Your task to perform on an android device: open chrome privacy settings Image 0: 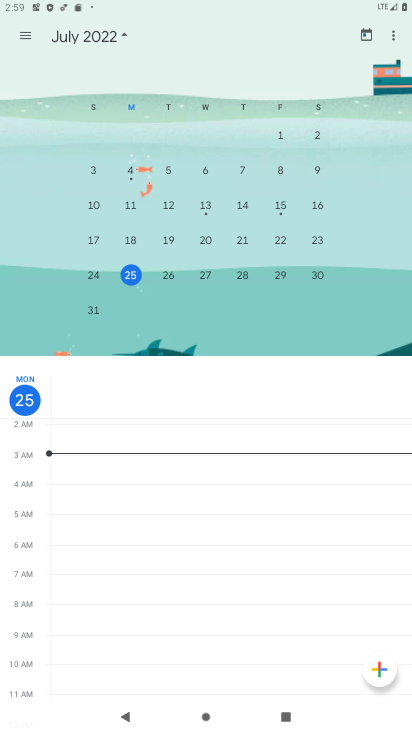
Step 0: press home button
Your task to perform on an android device: open chrome privacy settings Image 1: 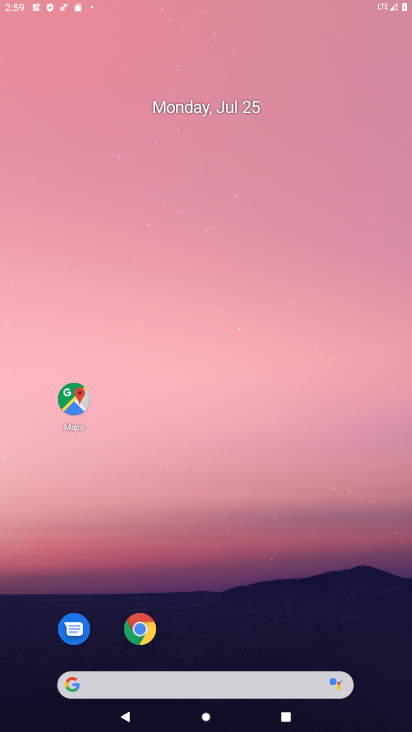
Step 1: drag from (172, 616) to (299, 40)
Your task to perform on an android device: open chrome privacy settings Image 2: 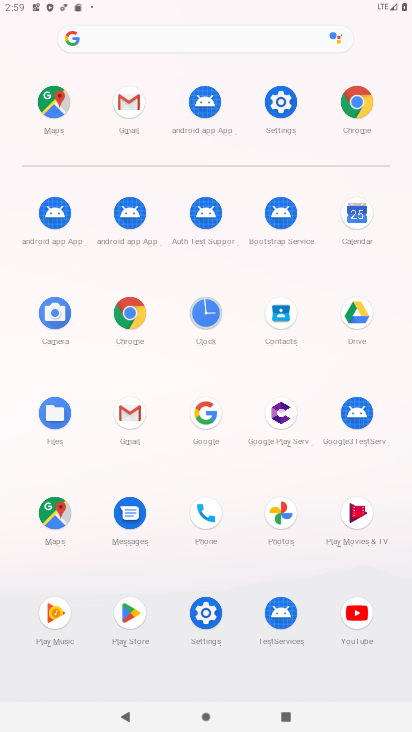
Step 2: click (356, 100)
Your task to perform on an android device: open chrome privacy settings Image 3: 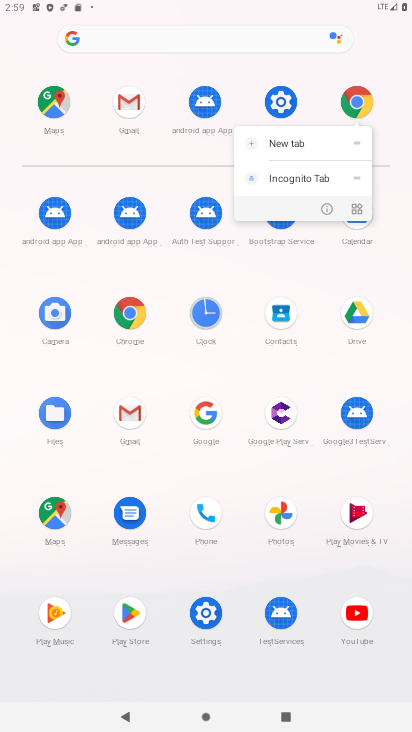
Step 3: click (333, 203)
Your task to perform on an android device: open chrome privacy settings Image 4: 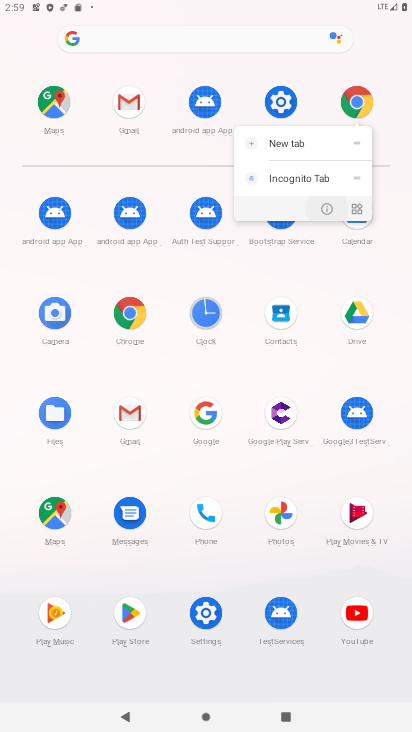
Step 4: click (332, 203)
Your task to perform on an android device: open chrome privacy settings Image 5: 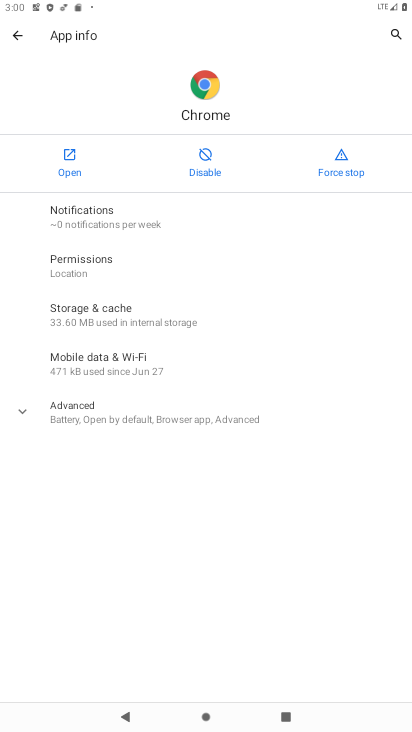
Step 5: click (70, 159)
Your task to perform on an android device: open chrome privacy settings Image 6: 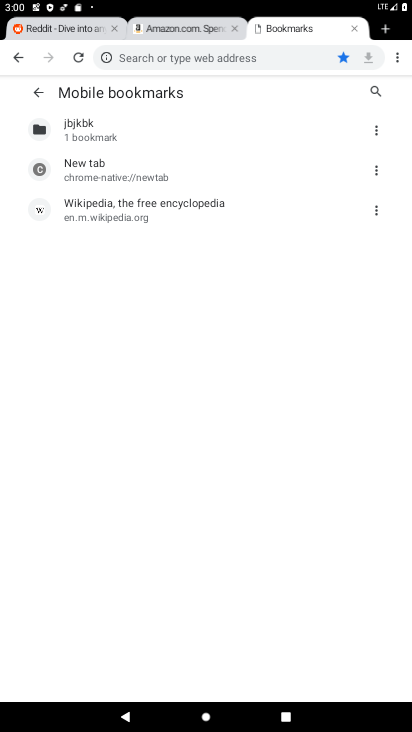
Step 6: drag from (394, 59) to (291, 302)
Your task to perform on an android device: open chrome privacy settings Image 7: 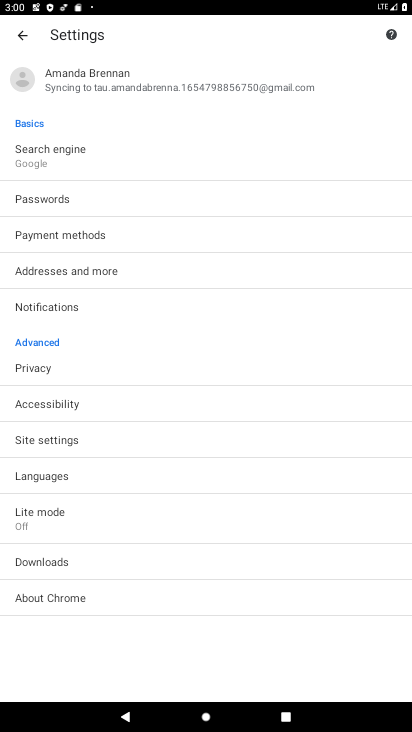
Step 7: click (62, 367)
Your task to perform on an android device: open chrome privacy settings Image 8: 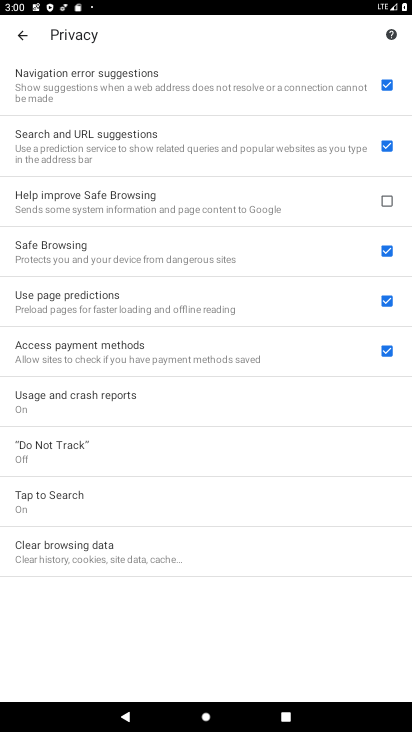
Step 8: task complete